Your task to perform on an android device: Go to display settings Image 0: 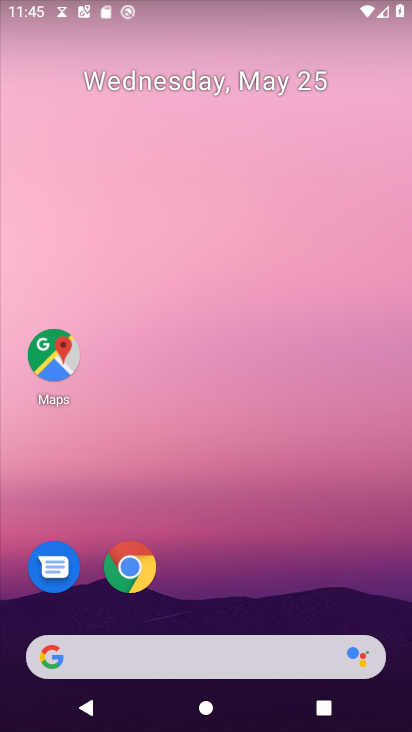
Step 0: drag from (216, 583) to (211, 105)
Your task to perform on an android device: Go to display settings Image 1: 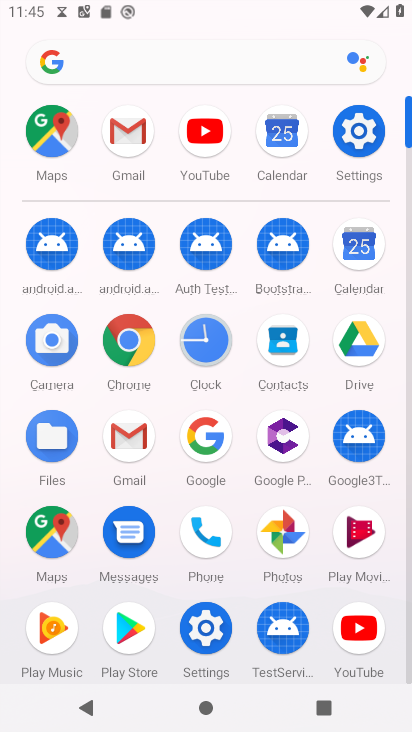
Step 1: click (361, 124)
Your task to perform on an android device: Go to display settings Image 2: 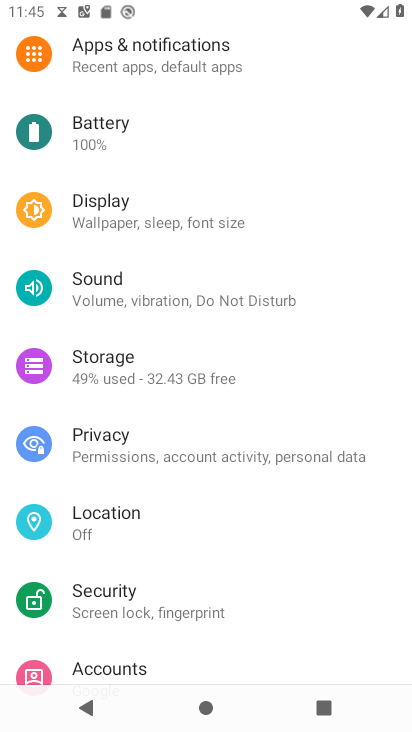
Step 2: click (161, 223)
Your task to perform on an android device: Go to display settings Image 3: 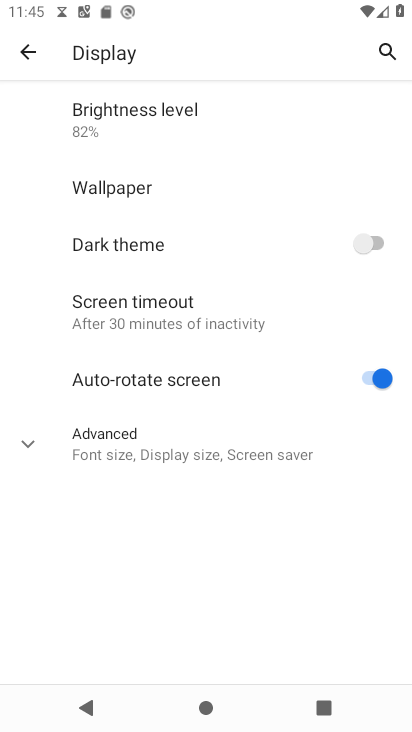
Step 3: task complete